Your task to perform on an android device: Open Wikipedia Image 0: 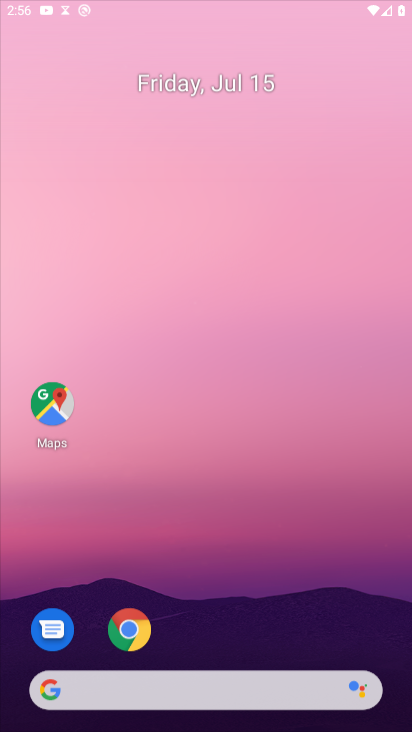
Step 0: press home button
Your task to perform on an android device: Open Wikipedia Image 1: 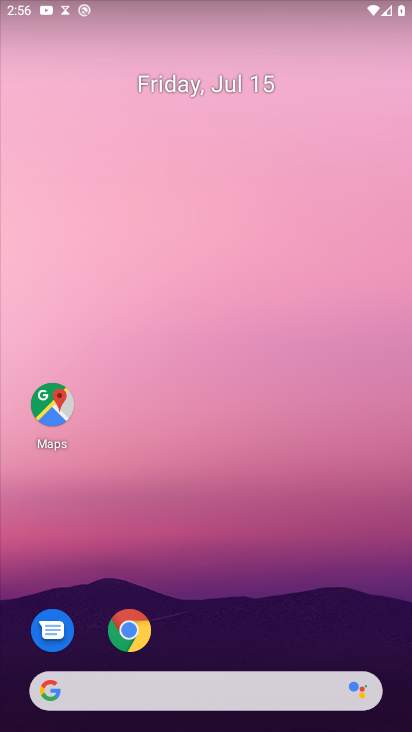
Step 1: click (43, 696)
Your task to perform on an android device: Open Wikipedia Image 2: 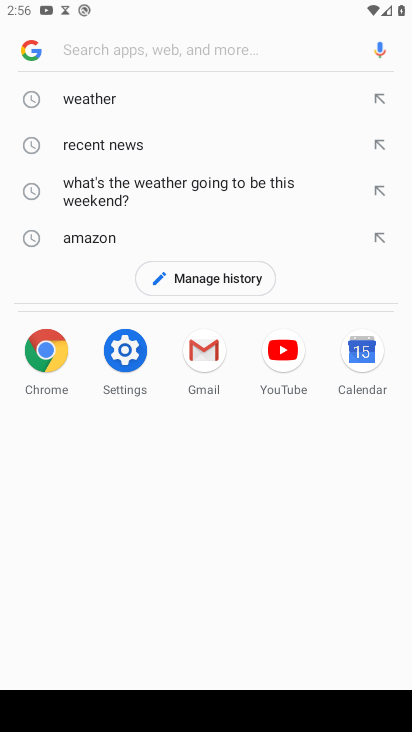
Step 2: type "Wikipedia"
Your task to perform on an android device: Open Wikipedia Image 3: 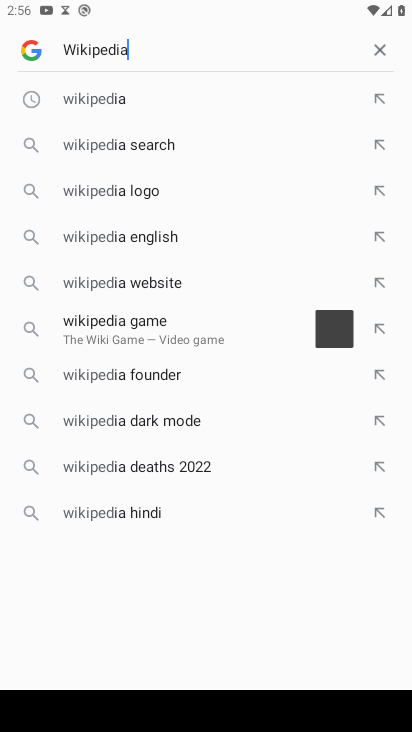
Step 3: press enter
Your task to perform on an android device: Open Wikipedia Image 4: 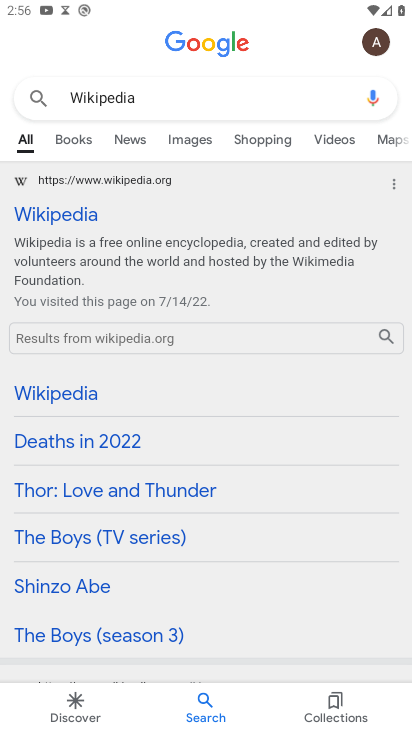
Step 4: click (61, 219)
Your task to perform on an android device: Open Wikipedia Image 5: 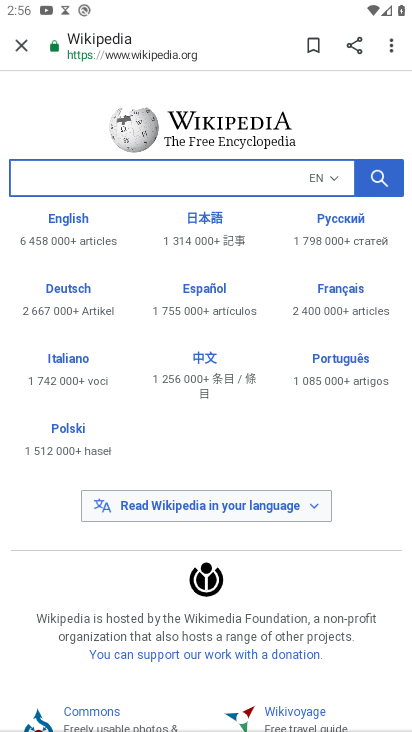
Step 5: task complete